Your task to perform on an android device: set the timer Image 0: 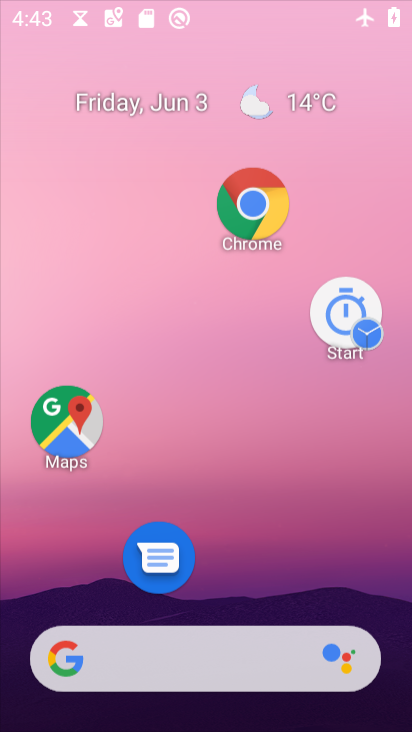
Step 0: drag from (37, 73) to (147, 190)
Your task to perform on an android device: set the timer Image 1: 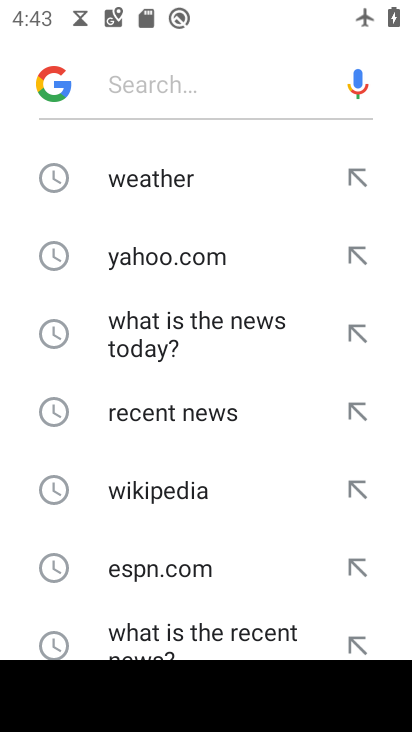
Step 1: press back button
Your task to perform on an android device: set the timer Image 2: 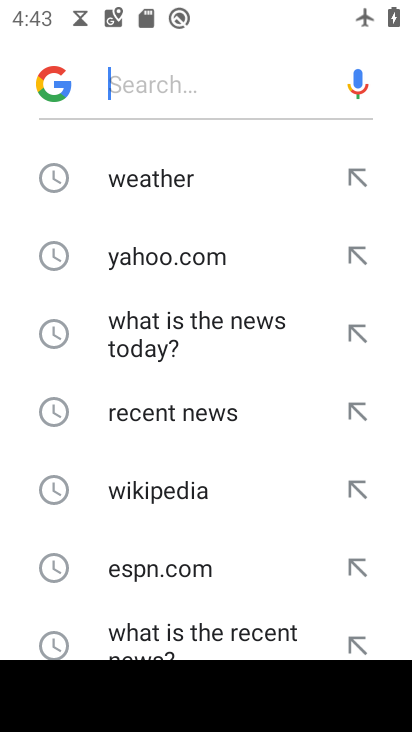
Step 2: press back button
Your task to perform on an android device: set the timer Image 3: 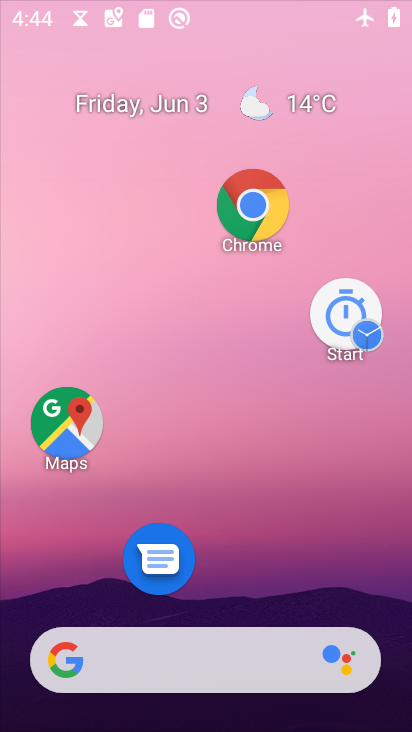
Step 3: press back button
Your task to perform on an android device: set the timer Image 4: 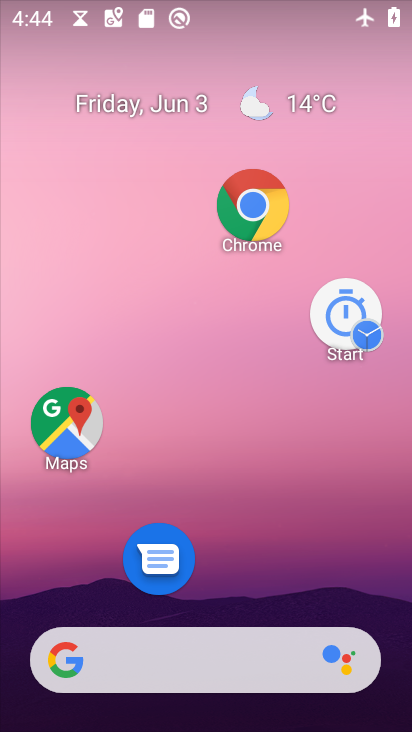
Step 4: press home button
Your task to perform on an android device: set the timer Image 5: 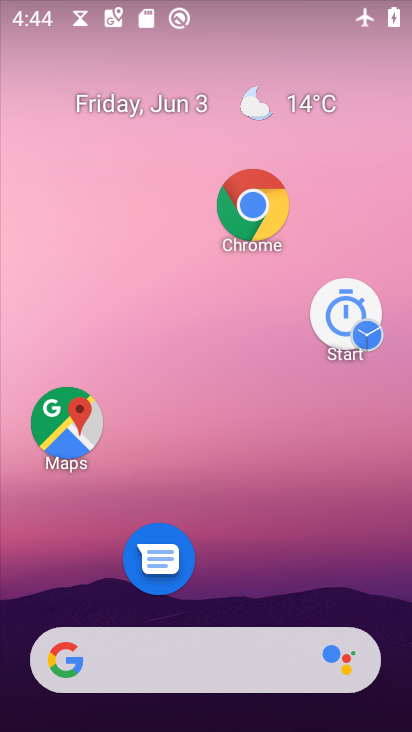
Step 5: click (169, 211)
Your task to perform on an android device: set the timer Image 6: 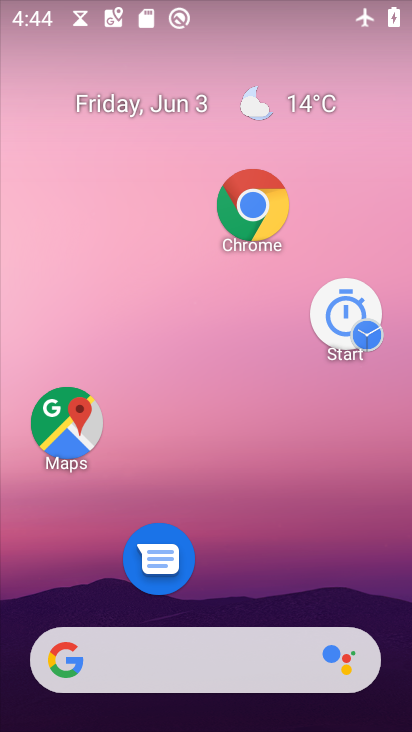
Step 6: drag from (244, 709) to (134, 109)
Your task to perform on an android device: set the timer Image 7: 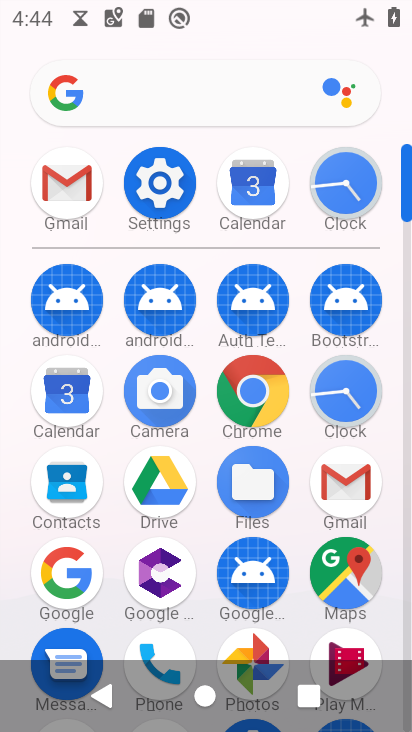
Step 7: click (333, 395)
Your task to perform on an android device: set the timer Image 8: 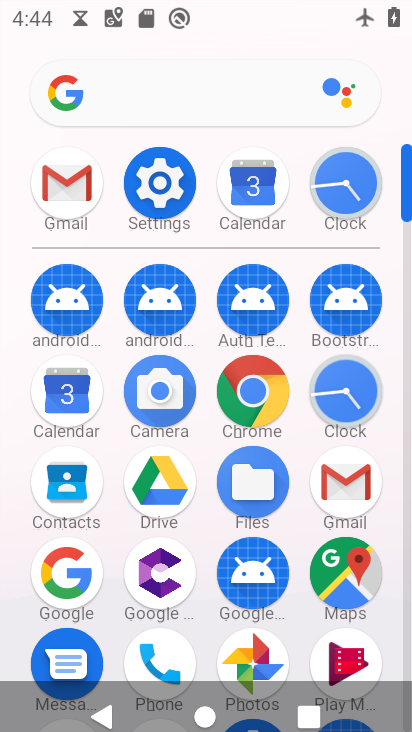
Step 8: click (351, 386)
Your task to perform on an android device: set the timer Image 9: 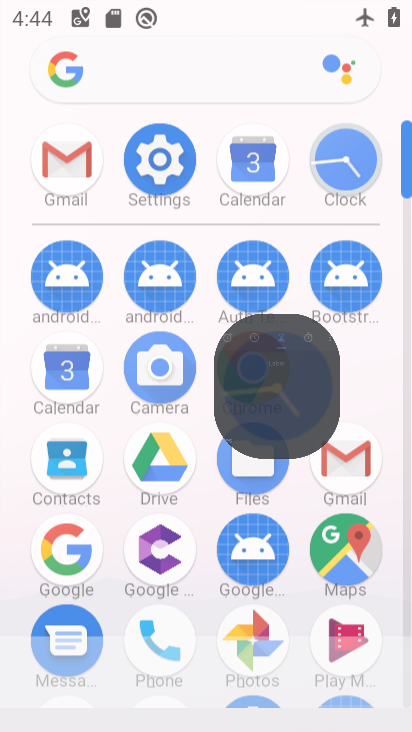
Step 9: click (351, 385)
Your task to perform on an android device: set the timer Image 10: 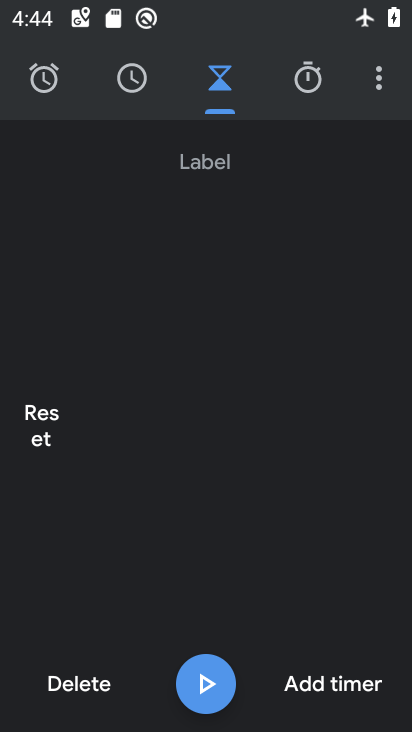
Step 10: click (357, 388)
Your task to perform on an android device: set the timer Image 11: 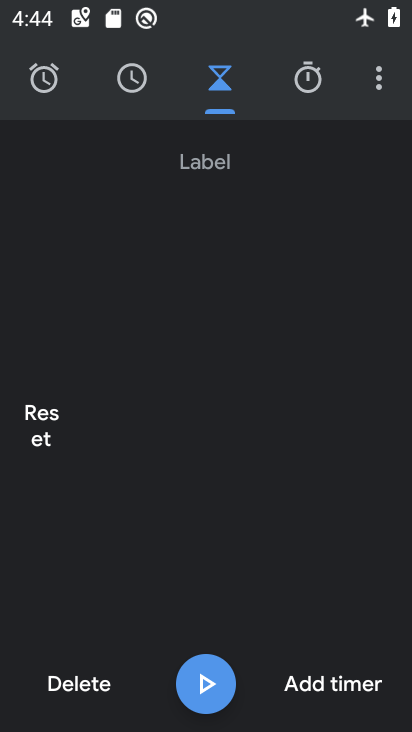
Step 11: click (204, 688)
Your task to perform on an android device: set the timer Image 12: 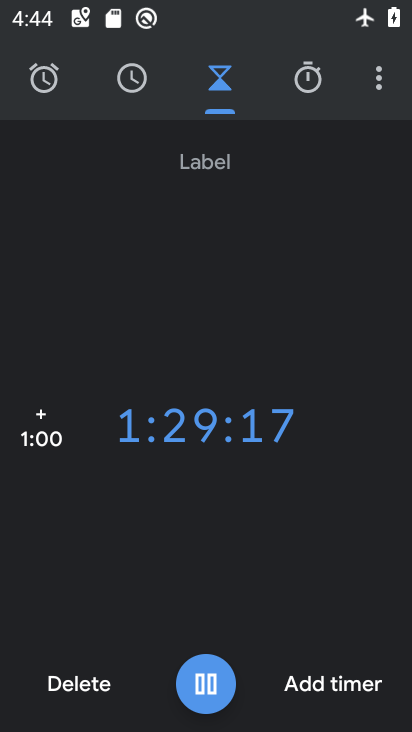
Step 12: click (201, 679)
Your task to perform on an android device: set the timer Image 13: 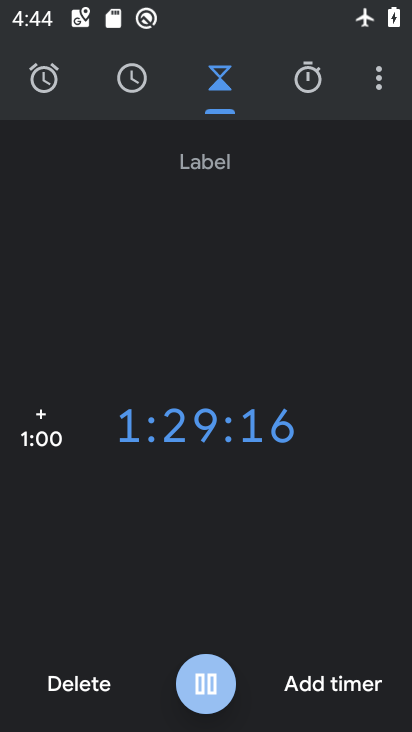
Step 13: click (204, 679)
Your task to perform on an android device: set the timer Image 14: 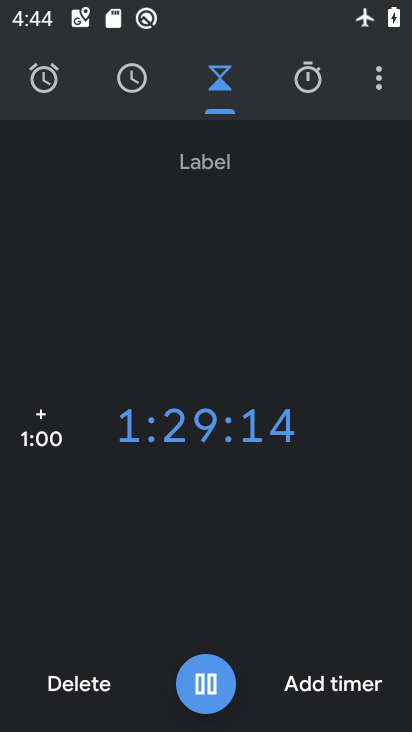
Step 14: click (206, 692)
Your task to perform on an android device: set the timer Image 15: 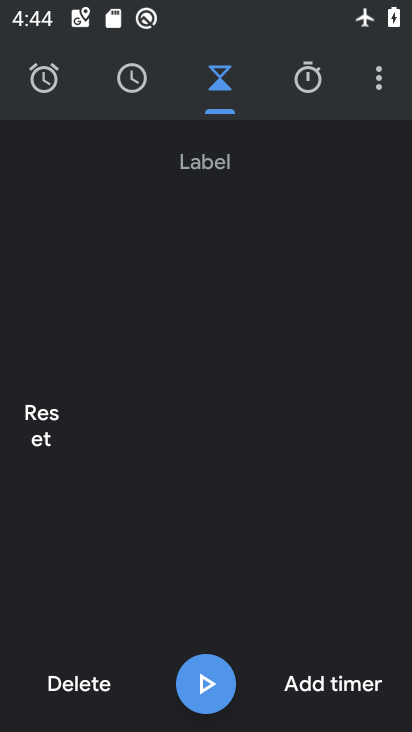
Step 15: task complete